Your task to perform on an android device: Open Youtube and go to the subscriptions tab Image 0: 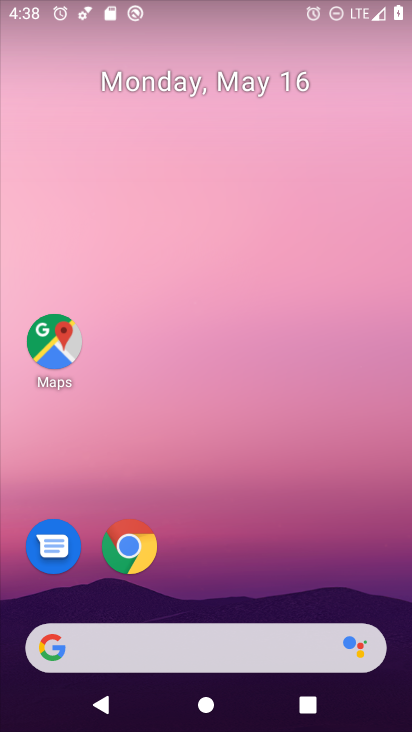
Step 0: drag from (318, 598) to (321, 146)
Your task to perform on an android device: Open Youtube and go to the subscriptions tab Image 1: 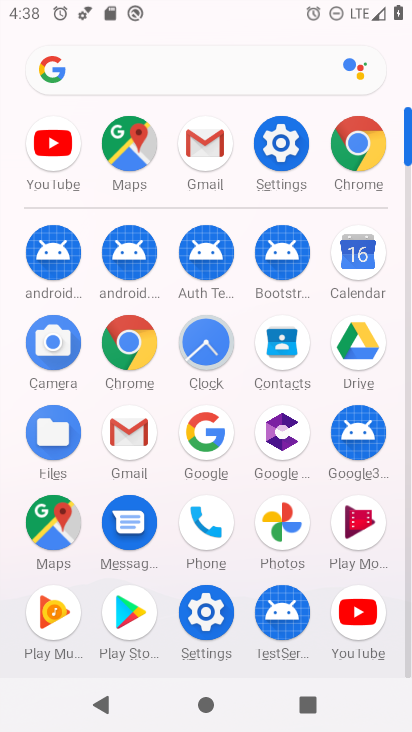
Step 1: click (348, 614)
Your task to perform on an android device: Open Youtube and go to the subscriptions tab Image 2: 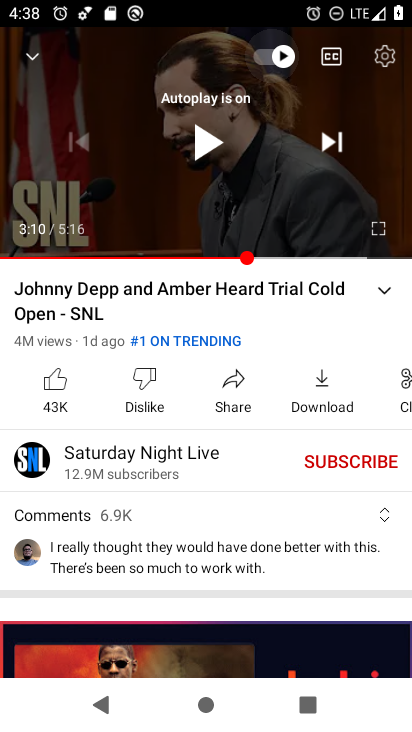
Step 2: press back button
Your task to perform on an android device: Open Youtube and go to the subscriptions tab Image 3: 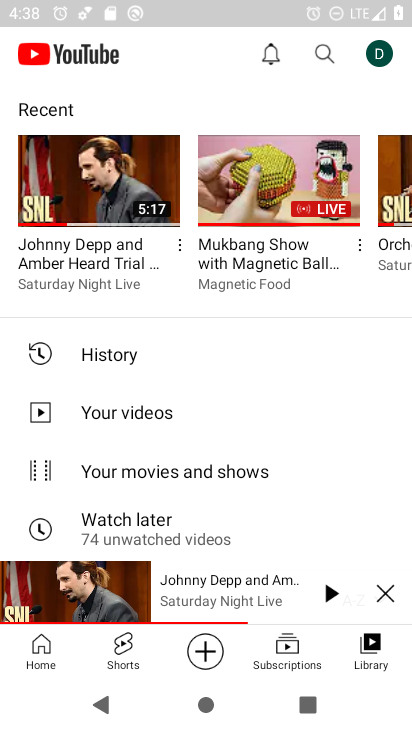
Step 3: click (278, 650)
Your task to perform on an android device: Open Youtube and go to the subscriptions tab Image 4: 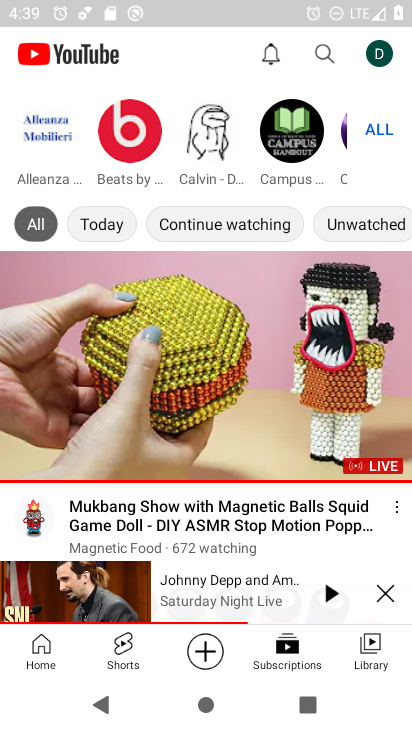
Step 4: task complete